Your task to perform on an android device: Search for a new mascara Image 0: 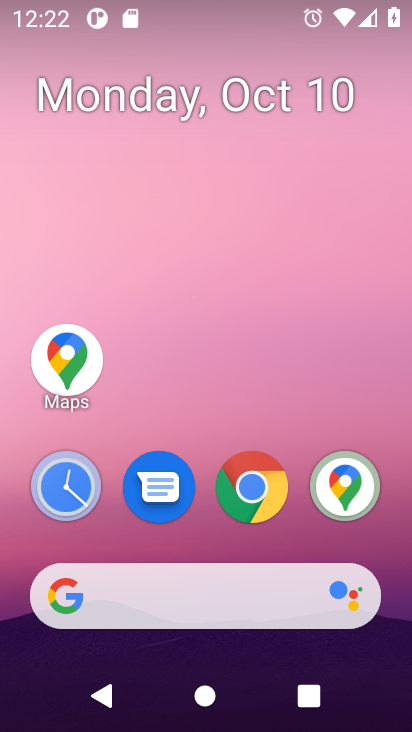
Step 0: drag from (211, 556) to (197, 30)
Your task to perform on an android device: Search for a new mascara Image 1: 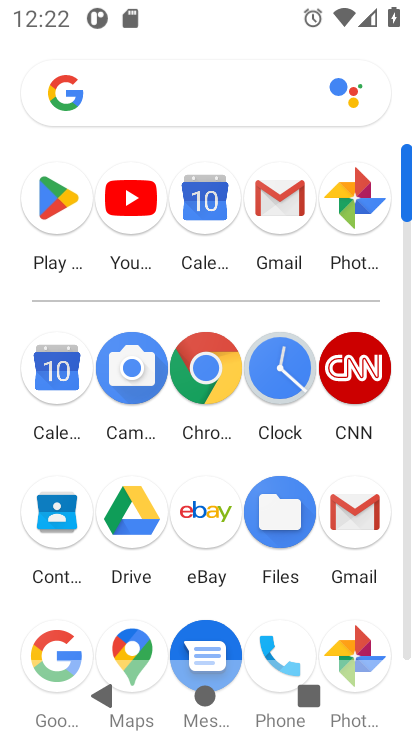
Step 1: click (197, 377)
Your task to perform on an android device: Search for a new mascara Image 2: 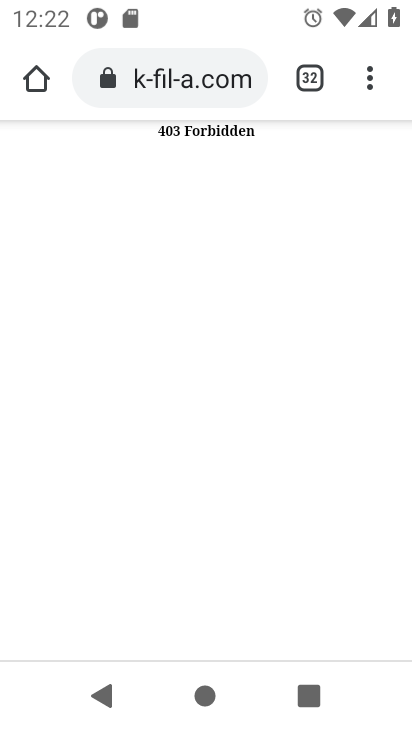
Step 2: drag from (368, 89) to (63, 170)
Your task to perform on an android device: Search for a new mascara Image 3: 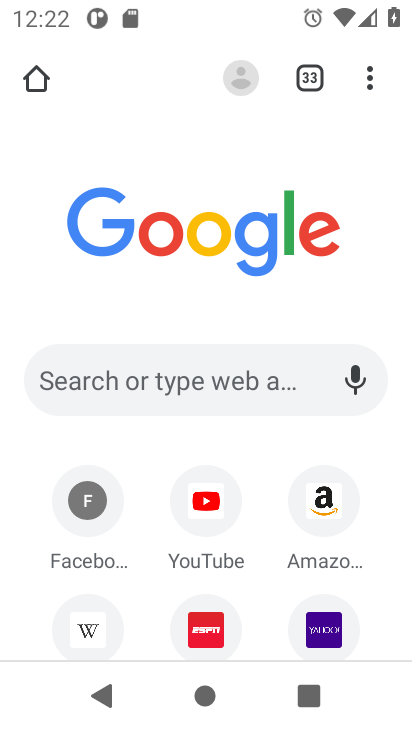
Step 3: click (191, 400)
Your task to perform on an android device: Search for a new mascara Image 4: 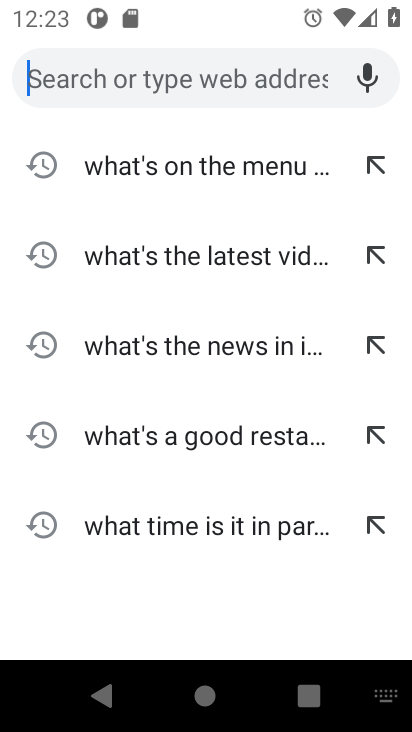
Step 4: type " new mascara"
Your task to perform on an android device: Search for a new mascara Image 5: 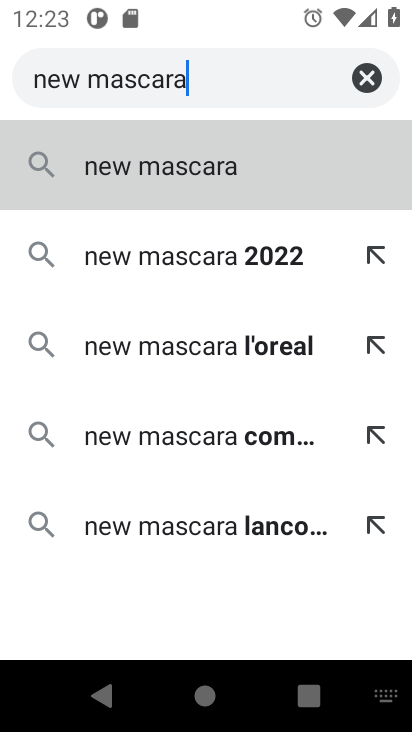
Step 5: click (195, 158)
Your task to perform on an android device: Search for a new mascara Image 6: 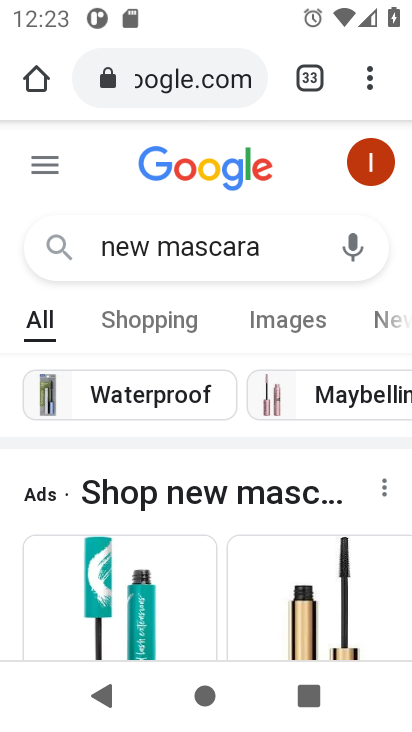
Step 6: task complete